Your task to perform on an android device: Search for Italian restaurants on Maps Image 0: 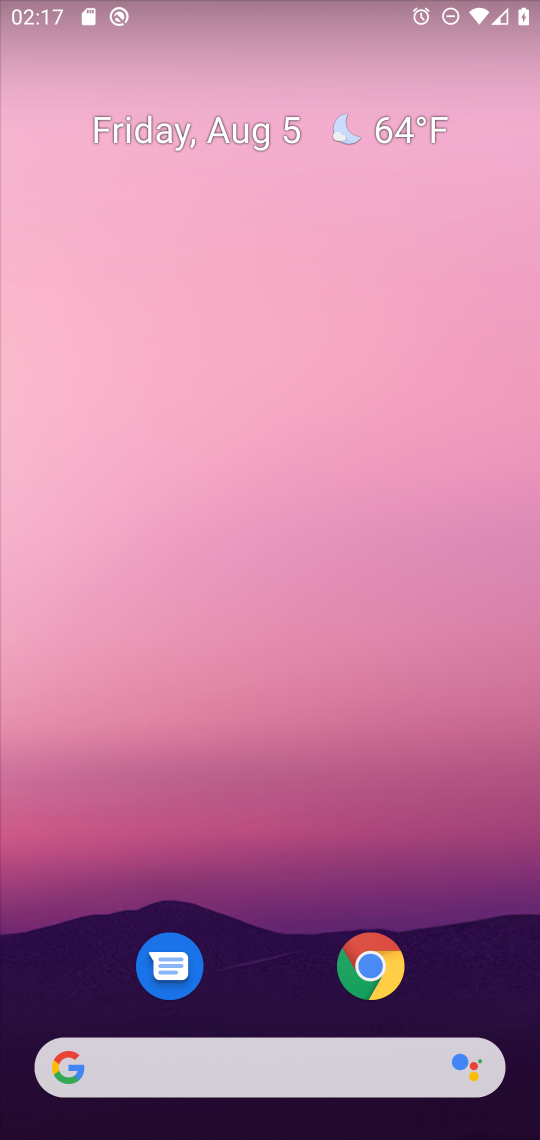
Step 0: drag from (263, 935) to (319, 20)
Your task to perform on an android device: Search for Italian restaurants on Maps Image 1: 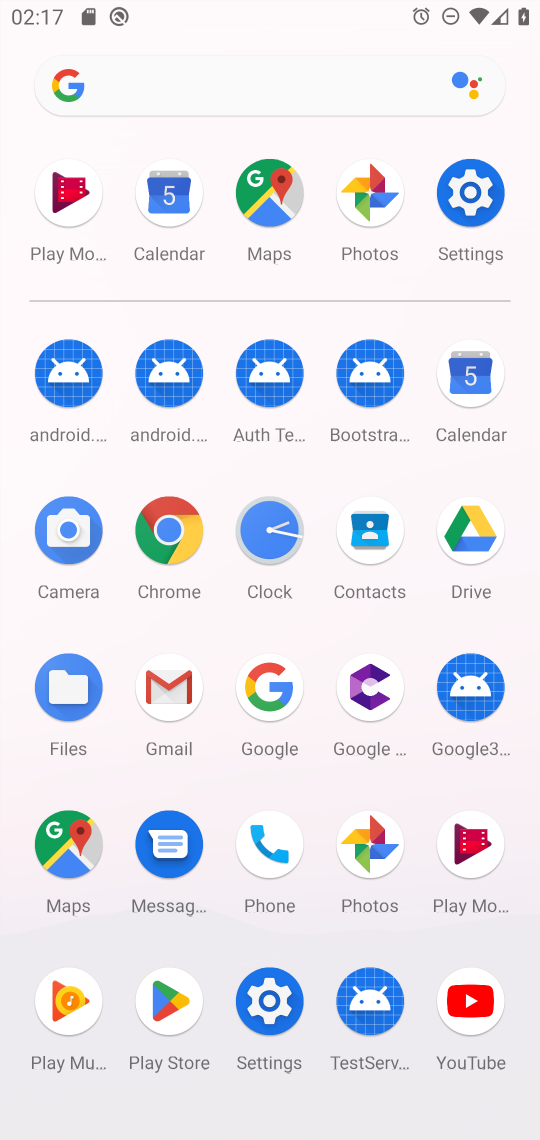
Step 1: click (275, 177)
Your task to perform on an android device: Search for Italian restaurants on Maps Image 2: 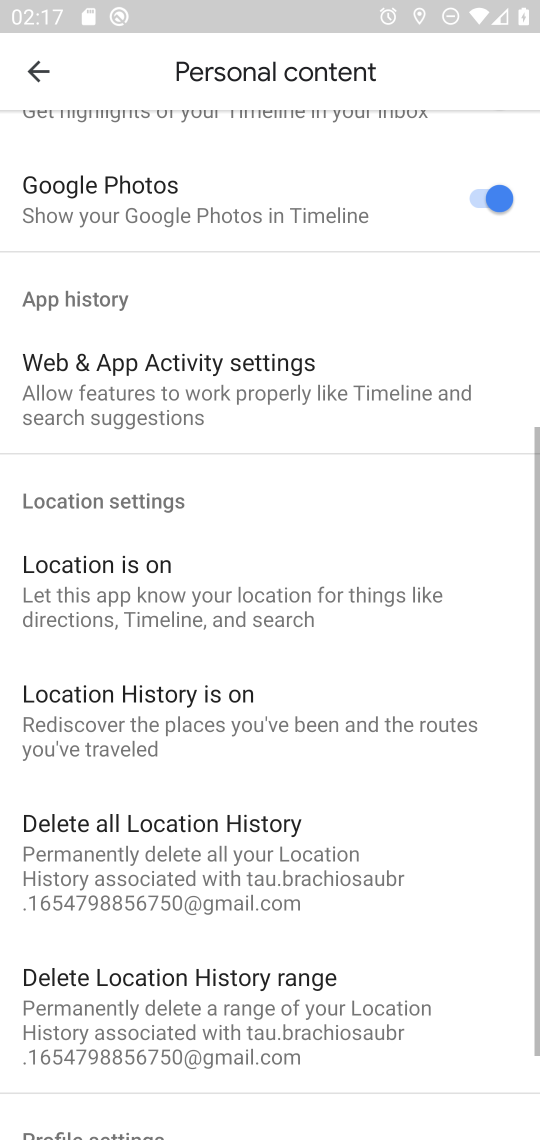
Step 2: click (49, 69)
Your task to perform on an android device: Search for Italian restaurants on Maps Image 3: 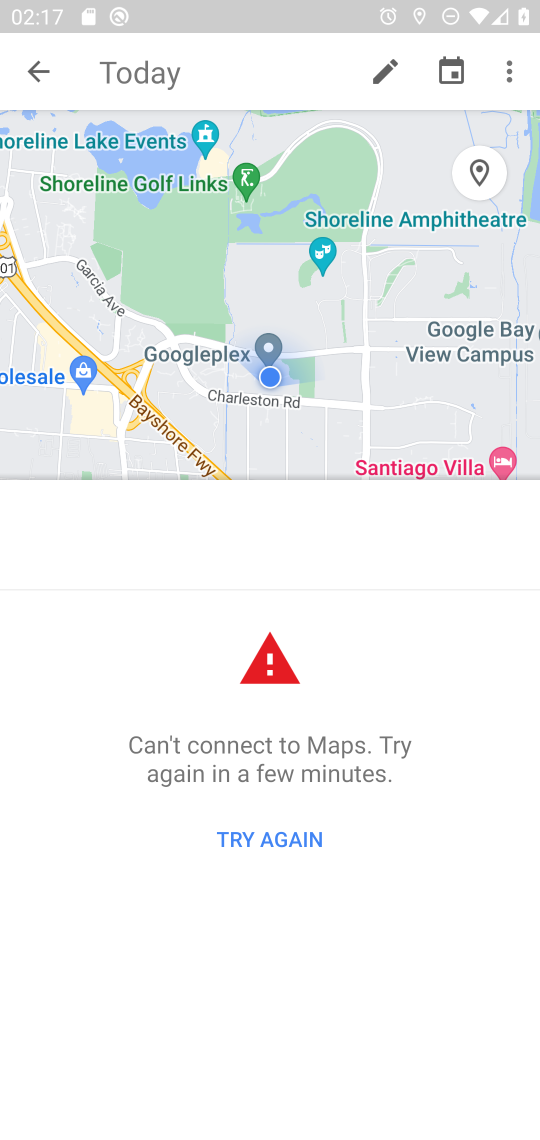
Step 3: click (143, 72)
Your task to perform on an android device: Search for Italian restaurants on Maps Image 4: 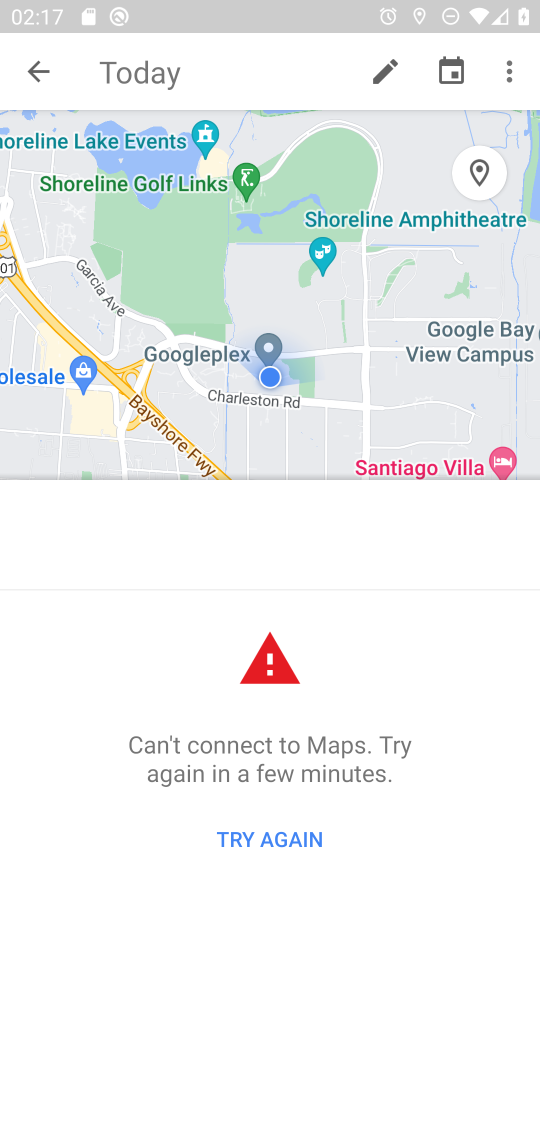
Step 4: click (181, 65)
Your task to perform on an android device: Search for Italian restaurants on Maps Image 5: 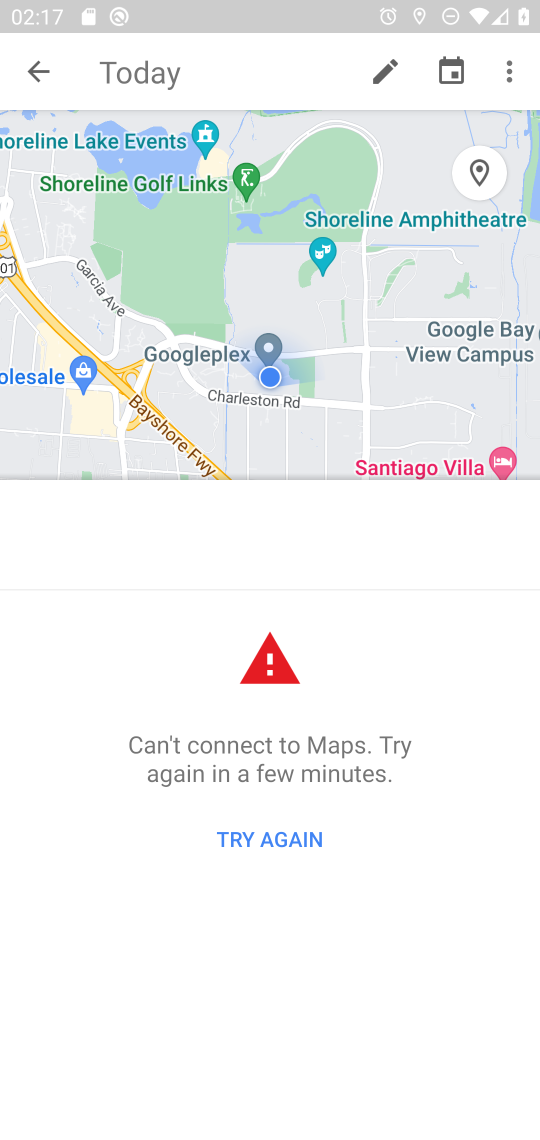
Step 5: click (40, 67)
Your task to perform on an android device: Search for Italian restaurants on Maps Image 6: 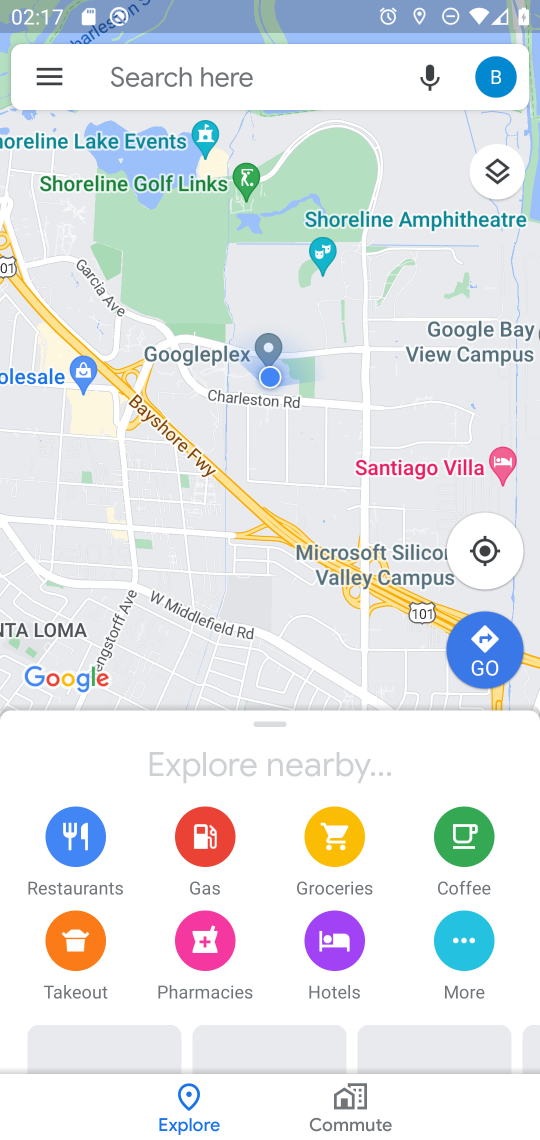
Step 6: click (173, 73)
Your task to perform on an android device: Search for Italian restaurants on Maps Image 7: 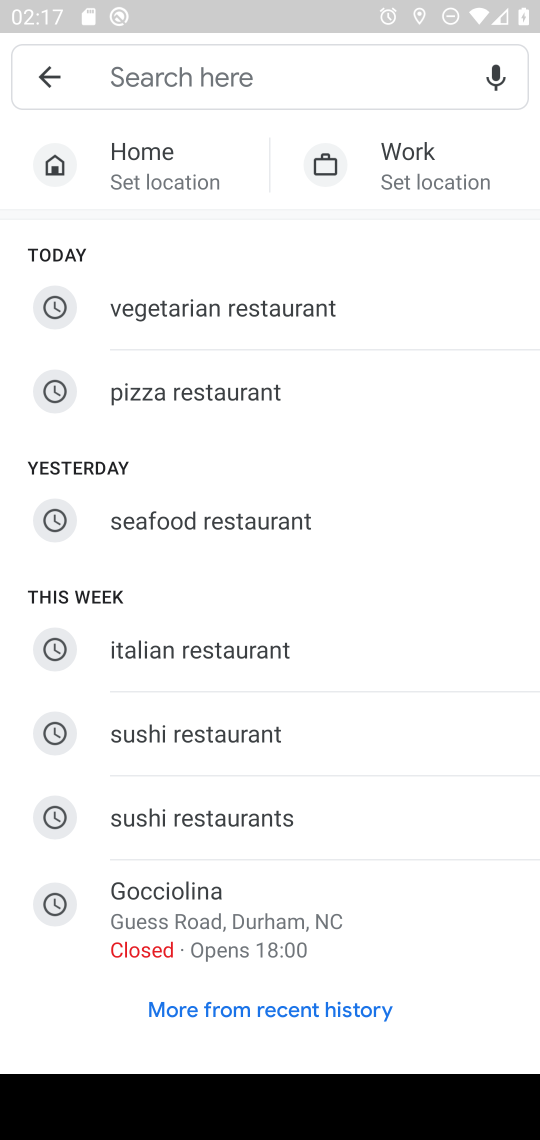
Step 7: click (262, 633)
Your task to perform on an android device: Search for Italian restaurants on Maps Image 8: 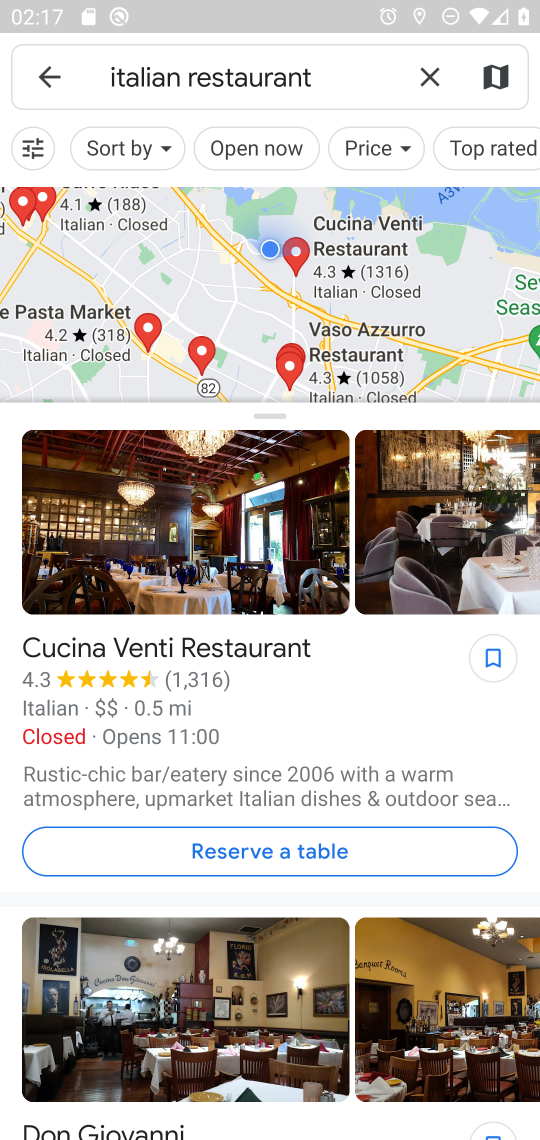
Step 8: task complete